Your task to perform on an android device: change your default location settings in chrome Image 0: 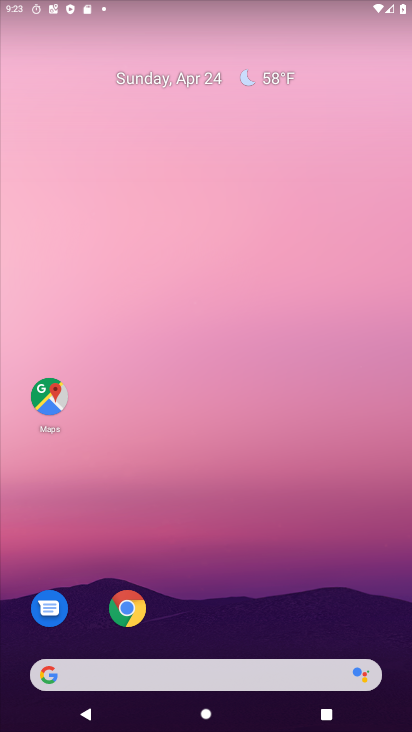
Step 0: drag from (352, 608) to (308, 59)
Your task to perform on an android device: change your default location settings in chrome Image 1: 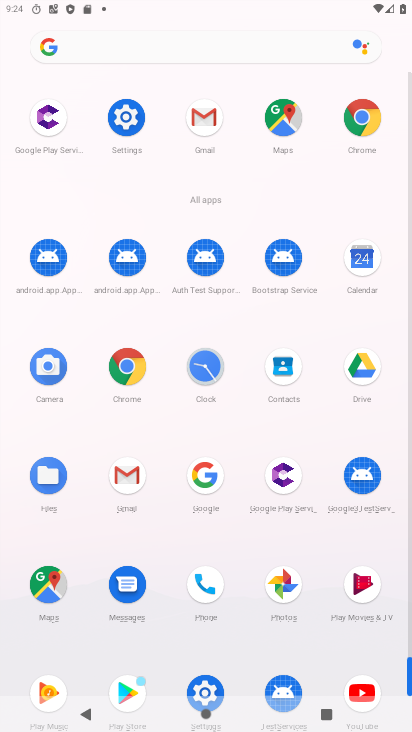
Step 1: click (367, 118)
Your task to perform on an android device: change your default location settings in chrome Image 2: 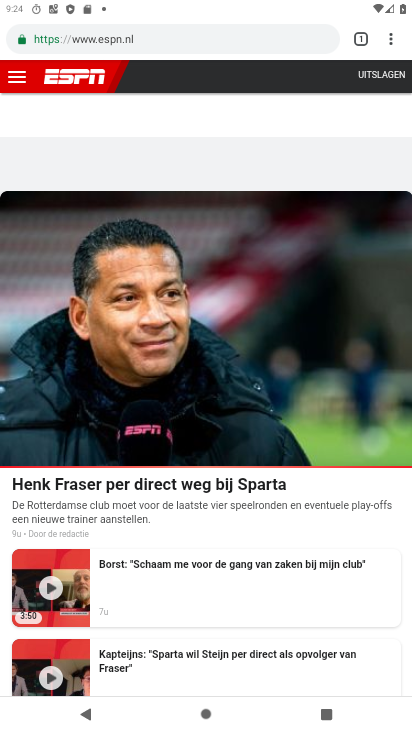
Step 2: press back button
Your task to perform on an android device: change your default location settings in chrome Image 3: 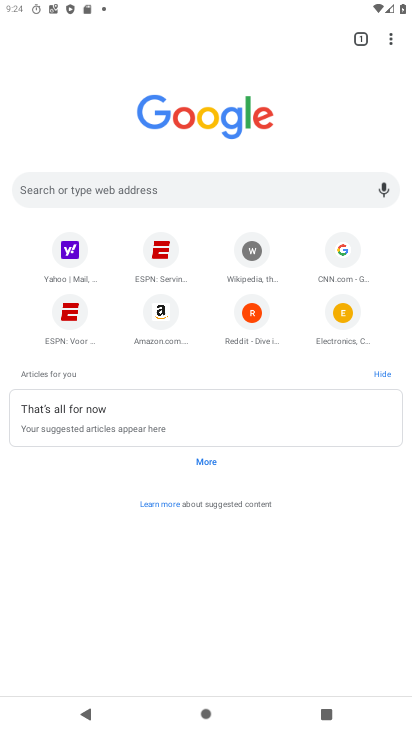
Step 3: click (390, 37)
Your task to perform on an android device: change your default location settings in chrome Image 4: 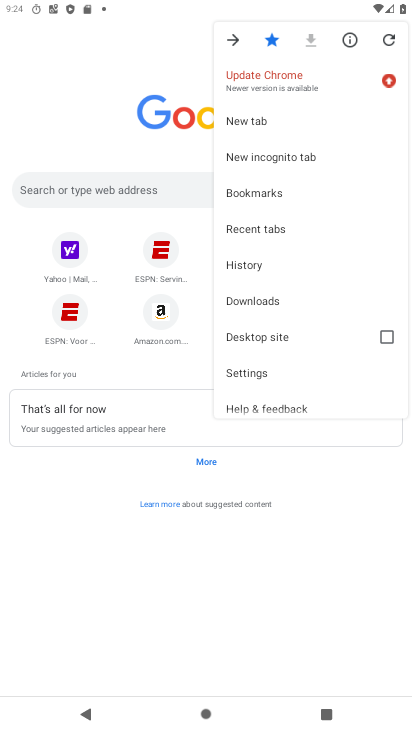
Step 4: click (258, 372)
Your task to perform on an android device: change your default location settings in chrome Image 5: 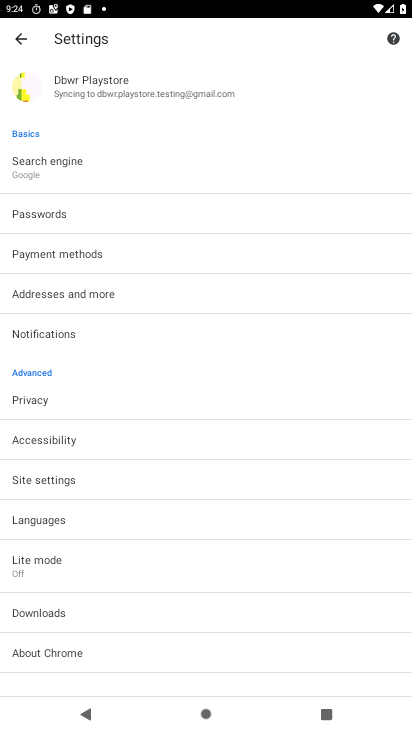
Step 5: drag from (243, 610) to (244, 442)
Your task to perform on an android device: change your default location settings in chrome Image 6: 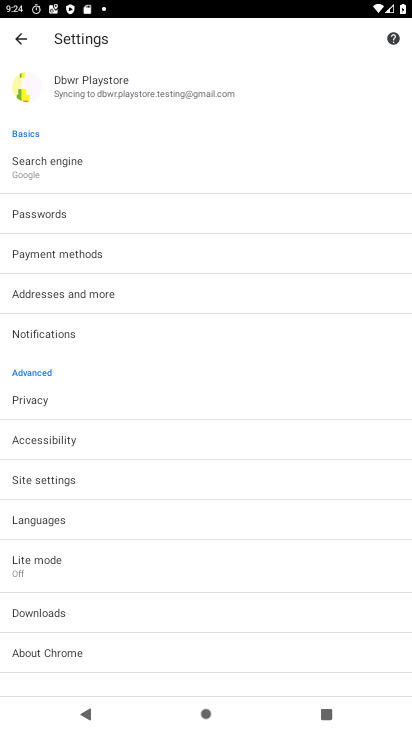
Step 6: drag from (253, 616) to (231, 447)
Your task to perform on an android device: change your default location settings in chrome Image 7: 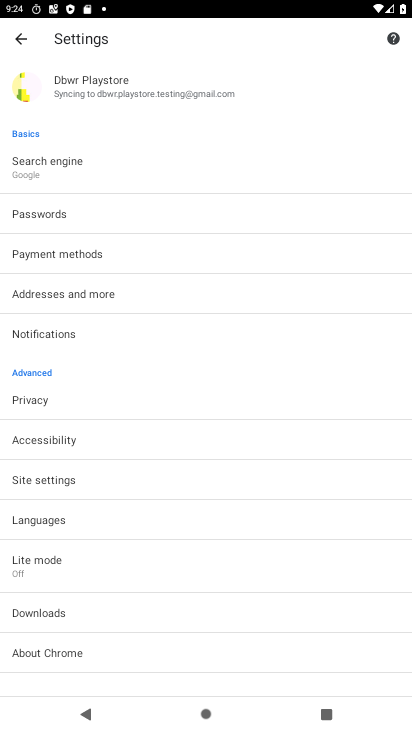
Step 7: drag from (246, 286) to (247, 479)
Your task to perform on an android device: change your default location settings in chrome Image 8: 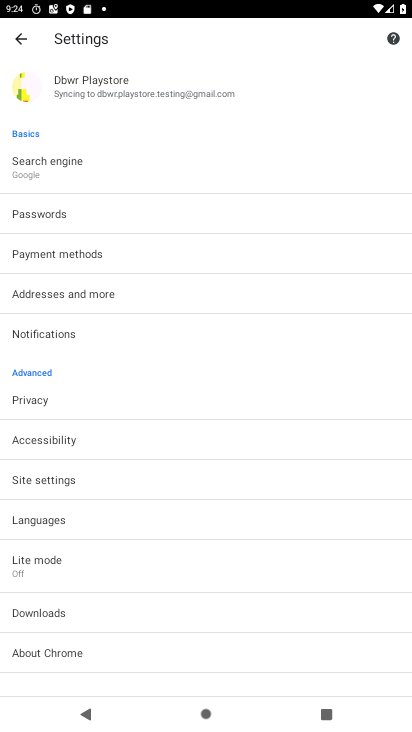
Step 8: click (245, 480)
Your task to perform on an android device: change your default location settings in chrome Image 9: 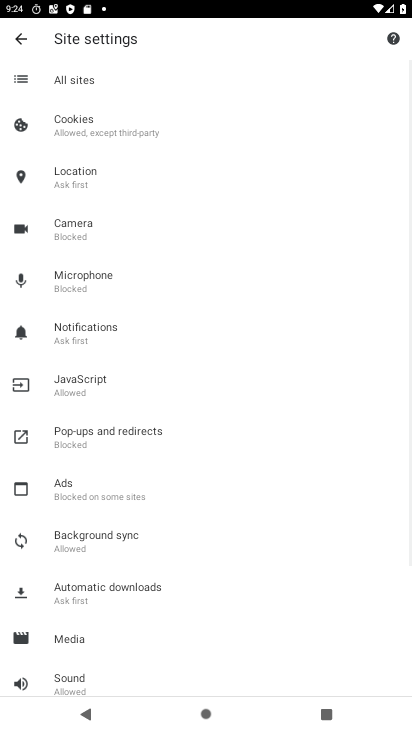
Step 9: drag from (262, 609) to (260, 452)
Your task to perform on an android device: change your default location settings in chrome Image 10: 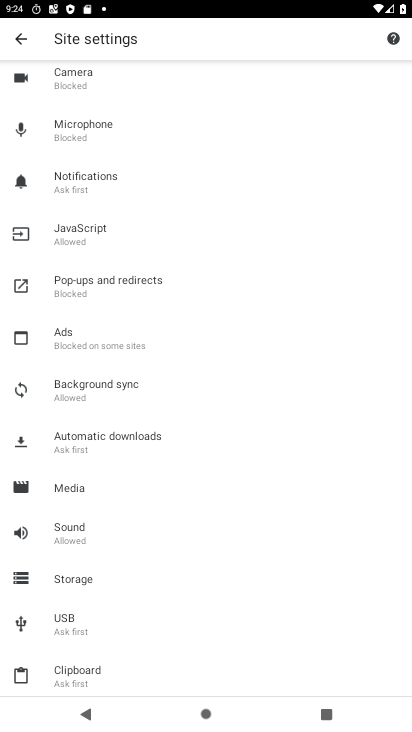
Step 10: drag from (266, 629) to (258, 469)
Your task to perform on an android device: change your default location settings in chrome Image 11: 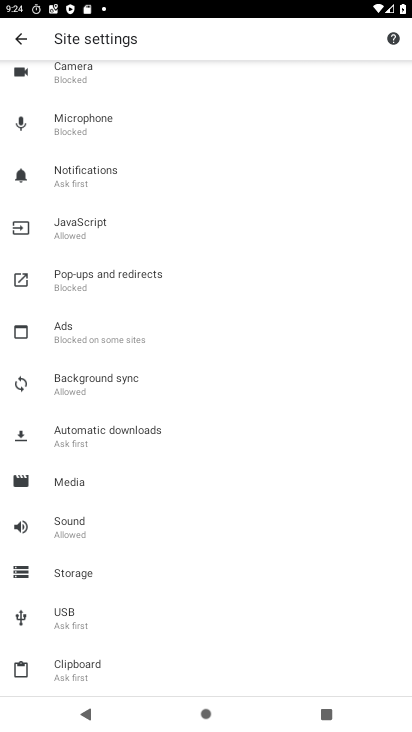
Step 11: drag from (284, 254) to (282, 419)
Your task to perform on an android device: change your default location settings in chrome Image 12: 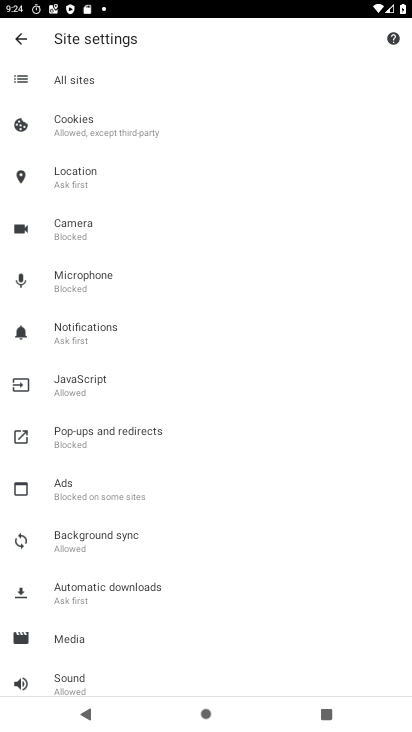
Step 12: drag from (281, 249) to (309, 475)
Your task to perform on an android device: change your default location settings in chrome Image 13: 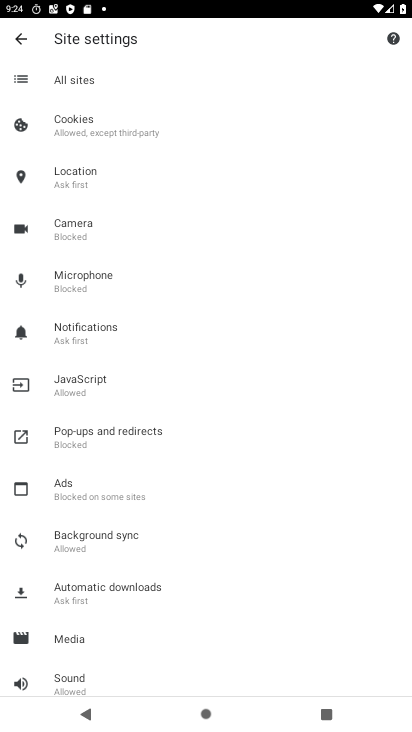
Step 13: drag from (254, 463) to (252, 275)
Your task to perform on an android device: change your default location settings in chrome Image 14: 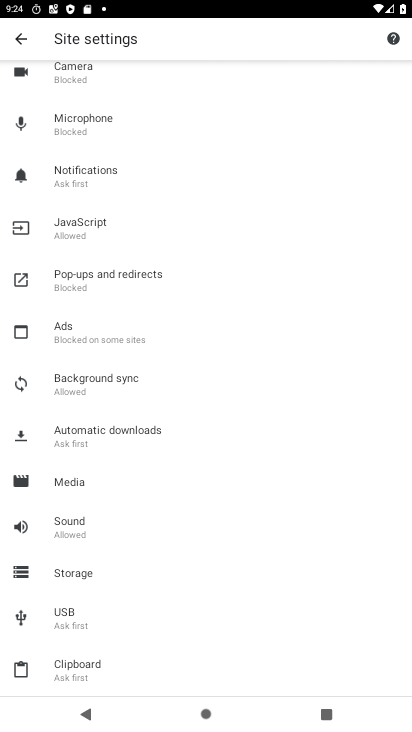
Step 14: drag from (255, 138) to (255, 396)
Your task to perform on an android device: change your default location settings in chrome Image 15: 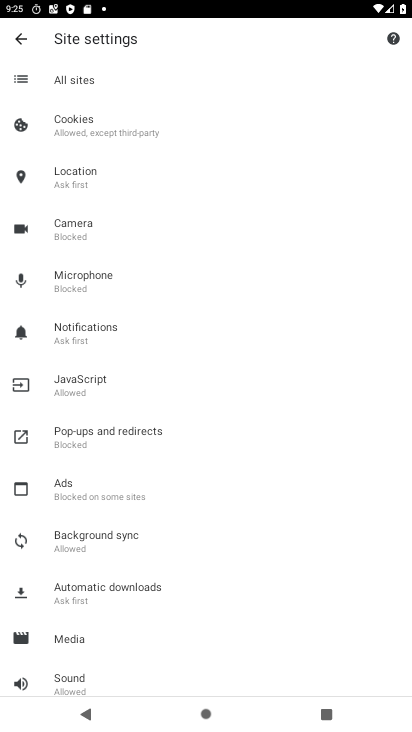
Step 15: drag from (237, 135) to (246, 355)
Your task to perform on an android device: change your default location settings in chrome Image 16: 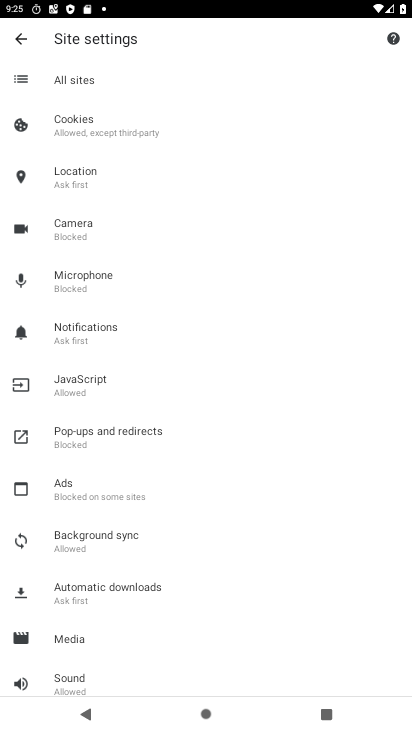
Step 16: click (76, 172)
Your task to perform on an android device: change your default location settings in chrome Image 17: 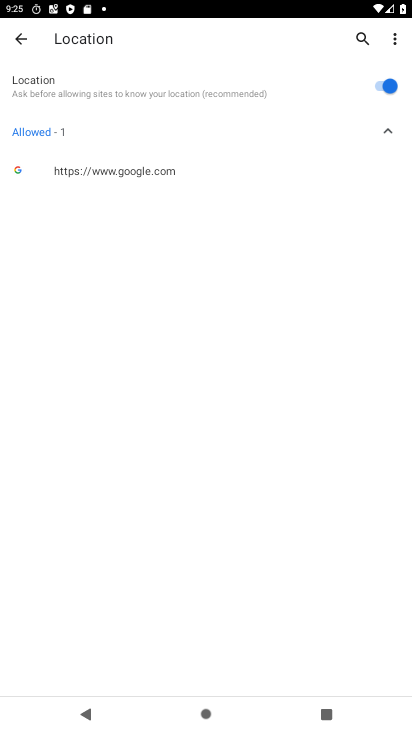
Step 17: click (373, 86)
Your task to perform on an android device: change your default location settings in chrome Image 18: 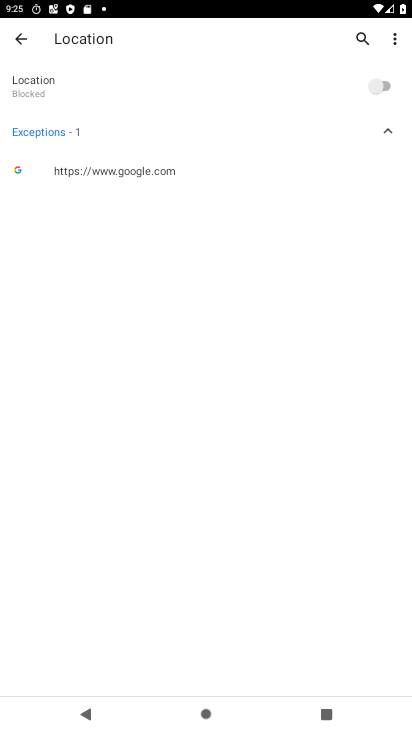
Step 18: task complete